Your task to perform on an android device: Open the phone app and click the voicemail tab. Image 0: 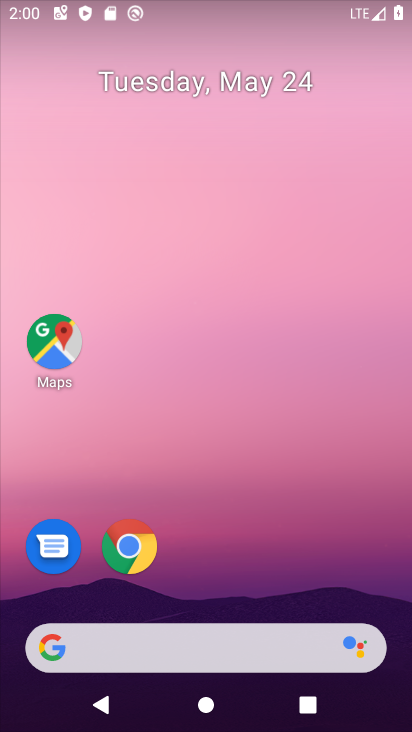
Step 0: drag from (355, 276) to (192, 17)
Your task to perform on an android device: Open the phone app and click the voicemail tab. Image 1: 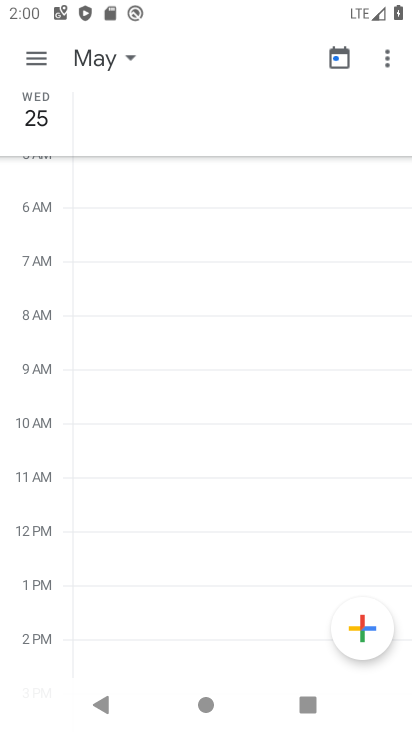
Step 1: press home button
Your task to perform on an android device: Open the phone app and click the voicemail tab. Image 2: 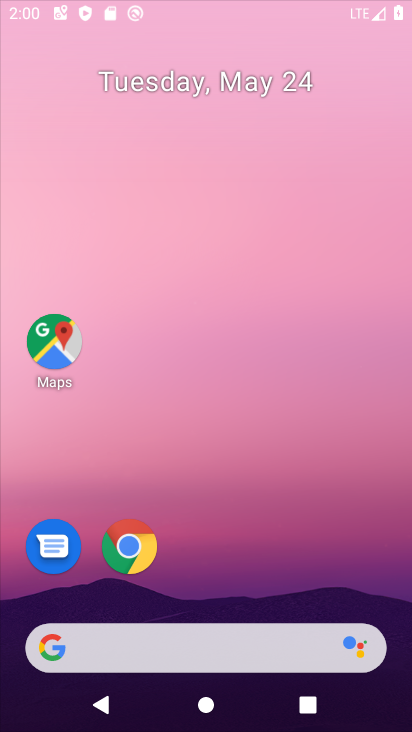
Step 2: drag from (199, 626) to (306, 126)
Your task to perform on an android device: Open the phone app and click the voicemail tab. Image 3: 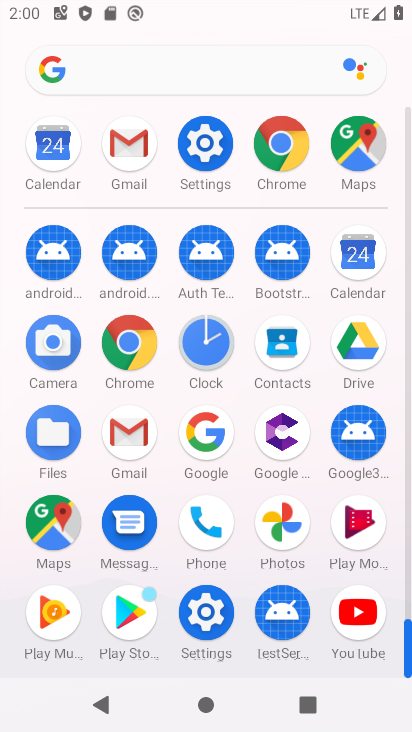
Step 3: click (205, 522)
Your task to perform on an android device: Open the phone app and click the voicemail tab. Image 4: 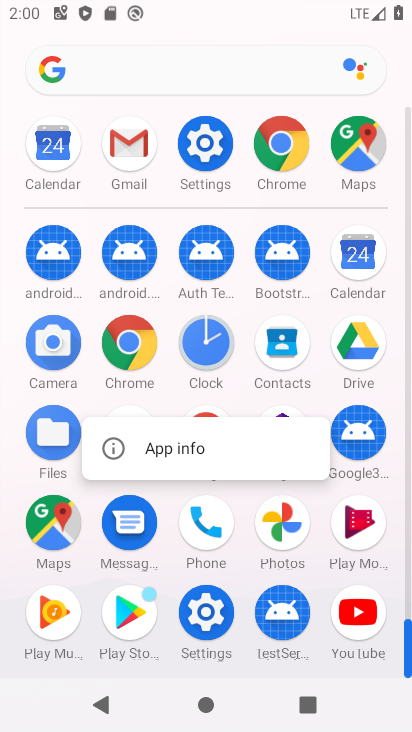
Step 4: click (185, 443)
Your task to perform on an android device: Open the phone app and click the voicemail tab. Image 5: 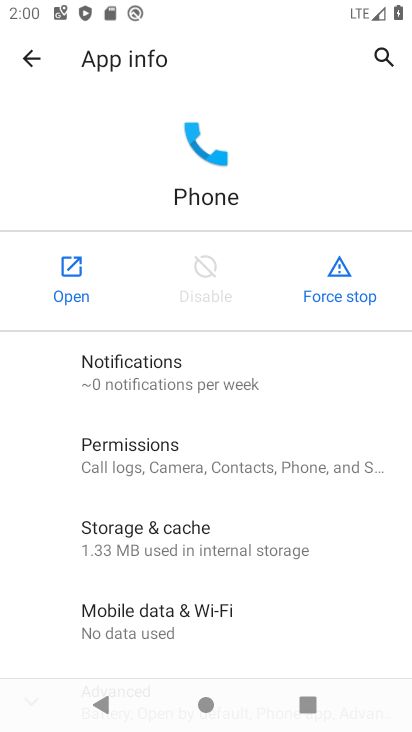
Step 5: click (74, 273)
Your task to perform on an android device: Open the phone app and click the voicemail tab. Image 6: 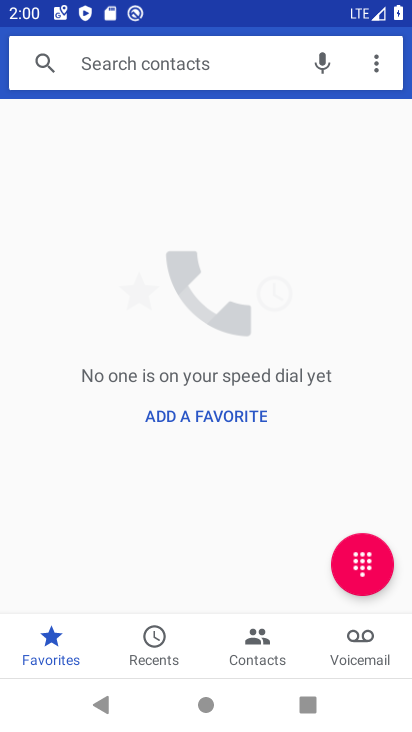
Step 6: click (349, 627)
Your task to perform on an android device: Open the phone app and click the voicemail tab. Image 7: 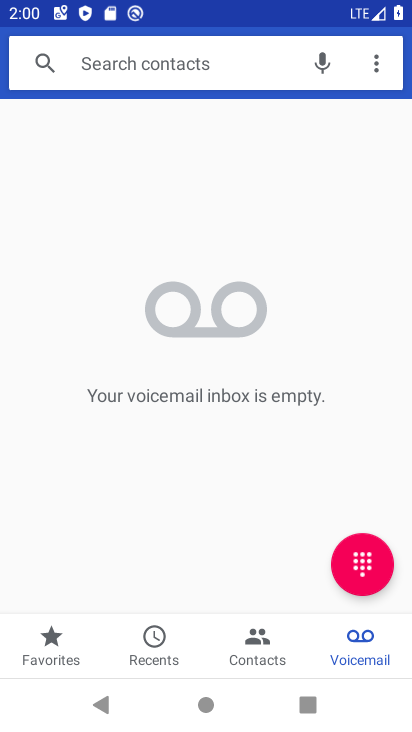
Step 7: task complete